Your task to perform on an android device: uninstall "Pluto TV - Live TV and Movies" Image 0: 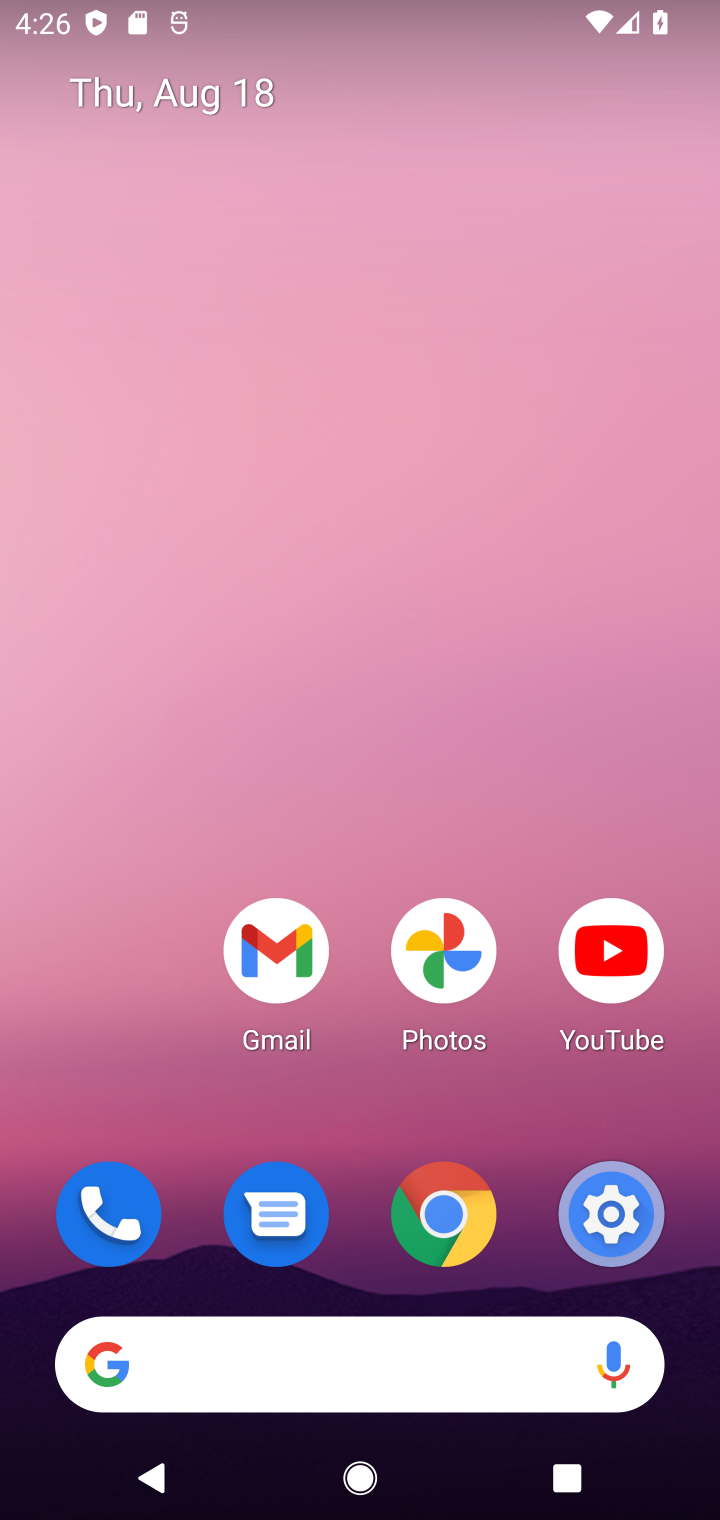
Step 0: drag from (232, 726) to (245, 396)
Your task to perform on an android device: uninstall "Pluto TV - Live TV and Movies" Image 1: 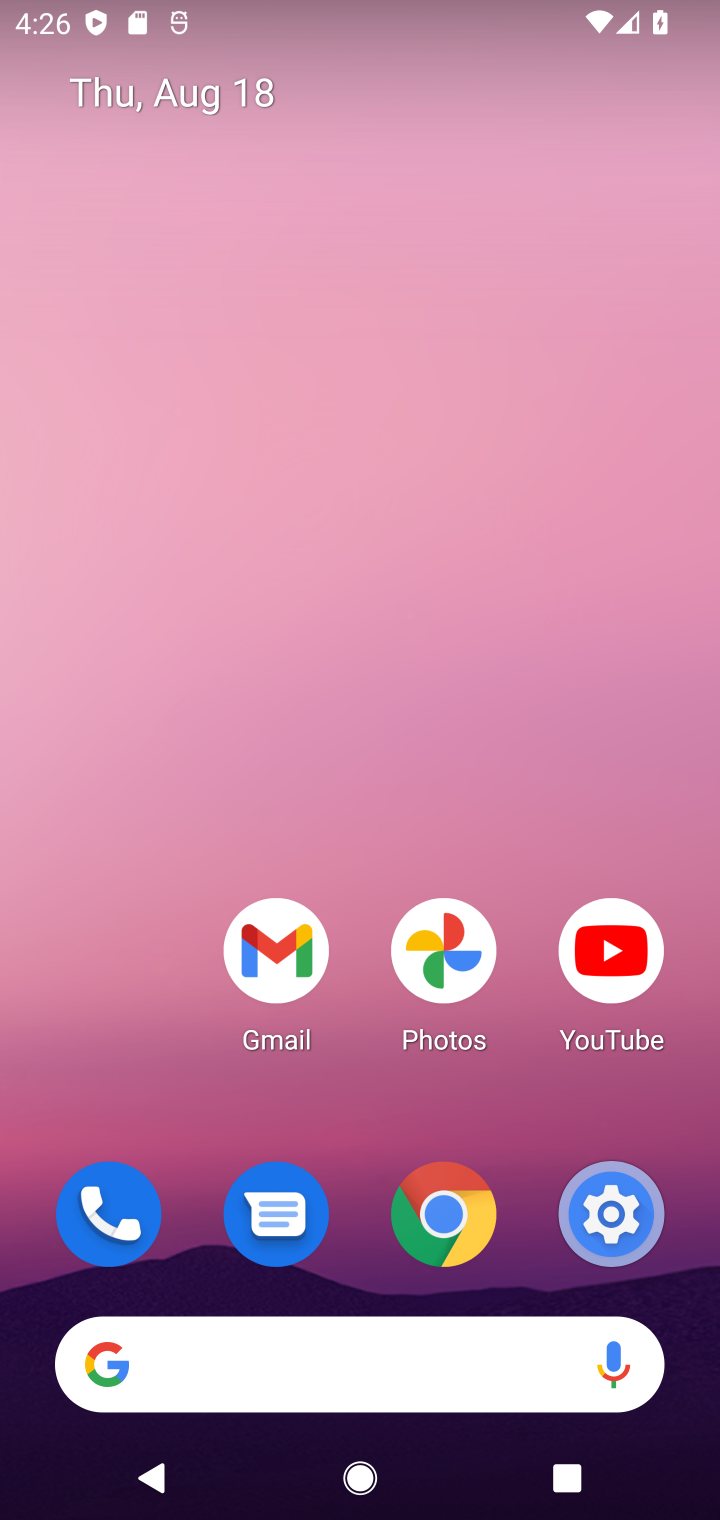
Step 1: drag from (319, 1178) to (374, 148)
Your task to perform on an android device: uninstall "Pluto TV - Live TV and Movies" Image 2: 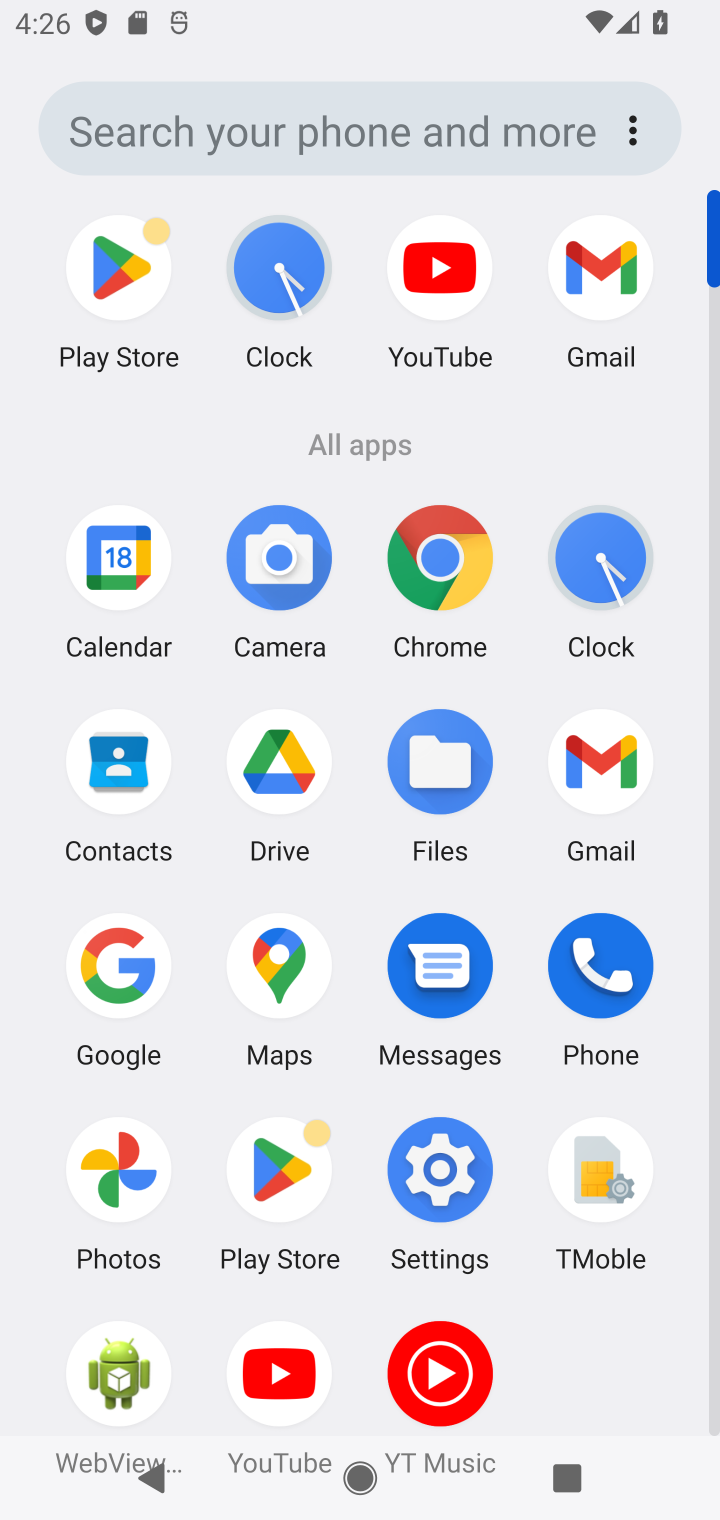
Step 2: click (292, 1185)
Your task to perform on an android device: uninstall "Pluto TV - Live TV and Movies" Image 3: 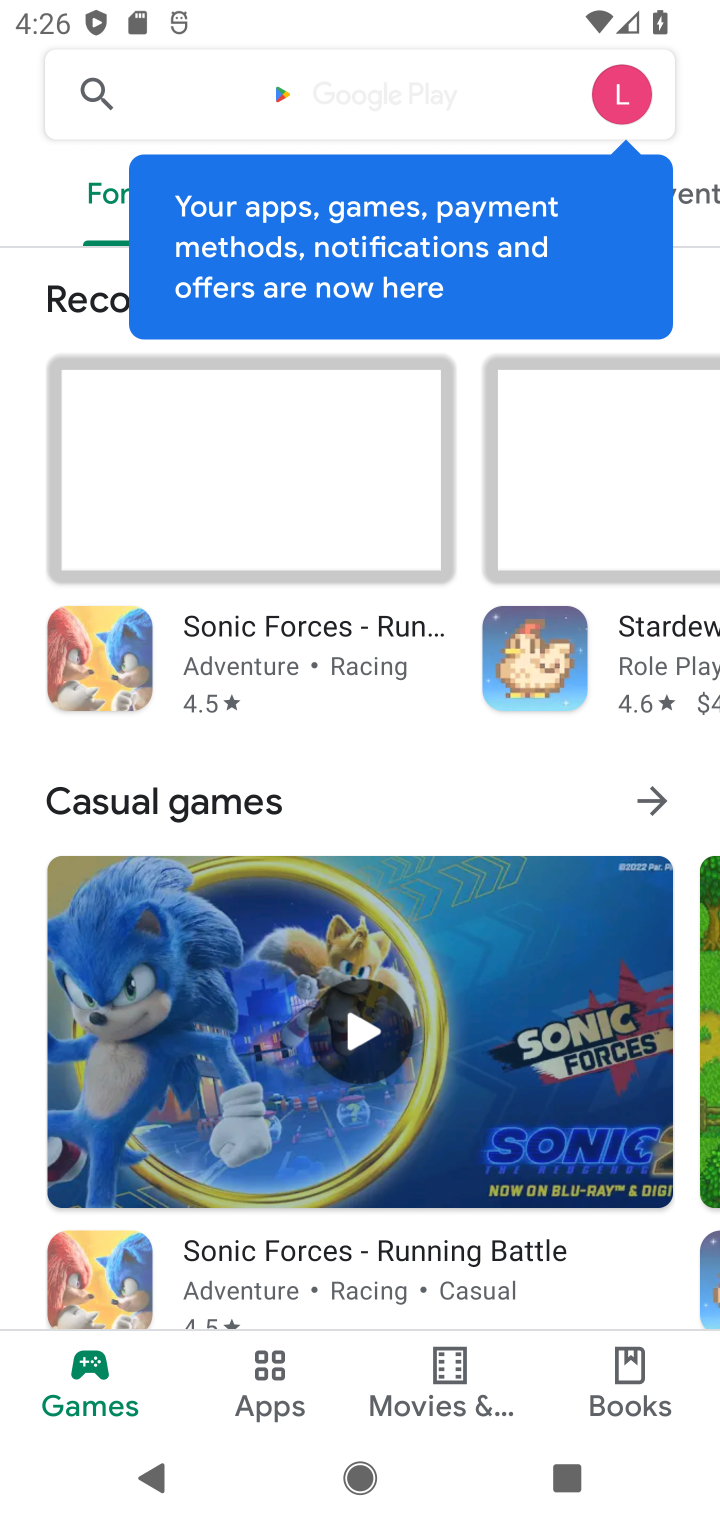
Step 3: click (325, 101)
Your task to perform on an android device: uninstall "Pluto TV - Live TV and Movies" Image 4: 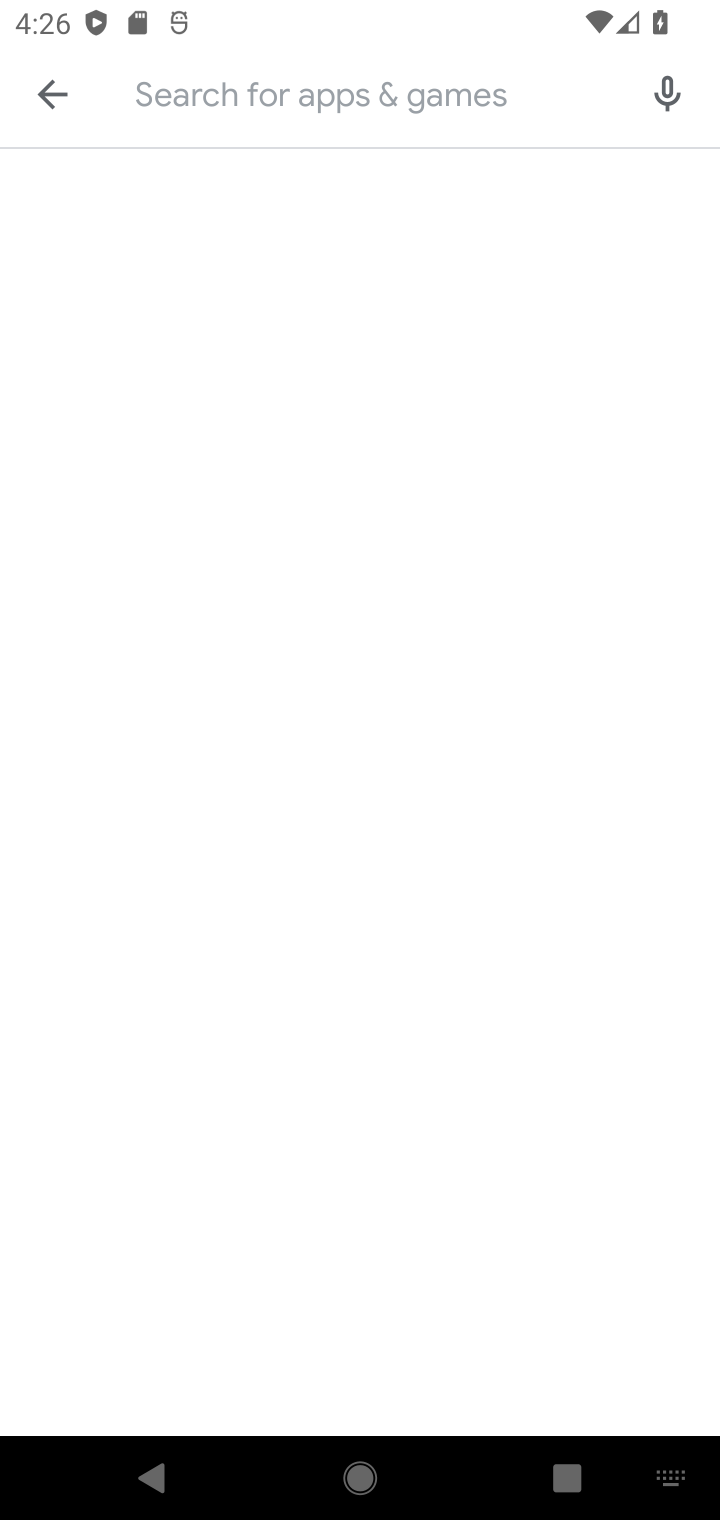
Step 4: type "pluto tv"
Your task to perform on an android device: uninstall "Pluto TV - Live TV and Movies" Image 5: 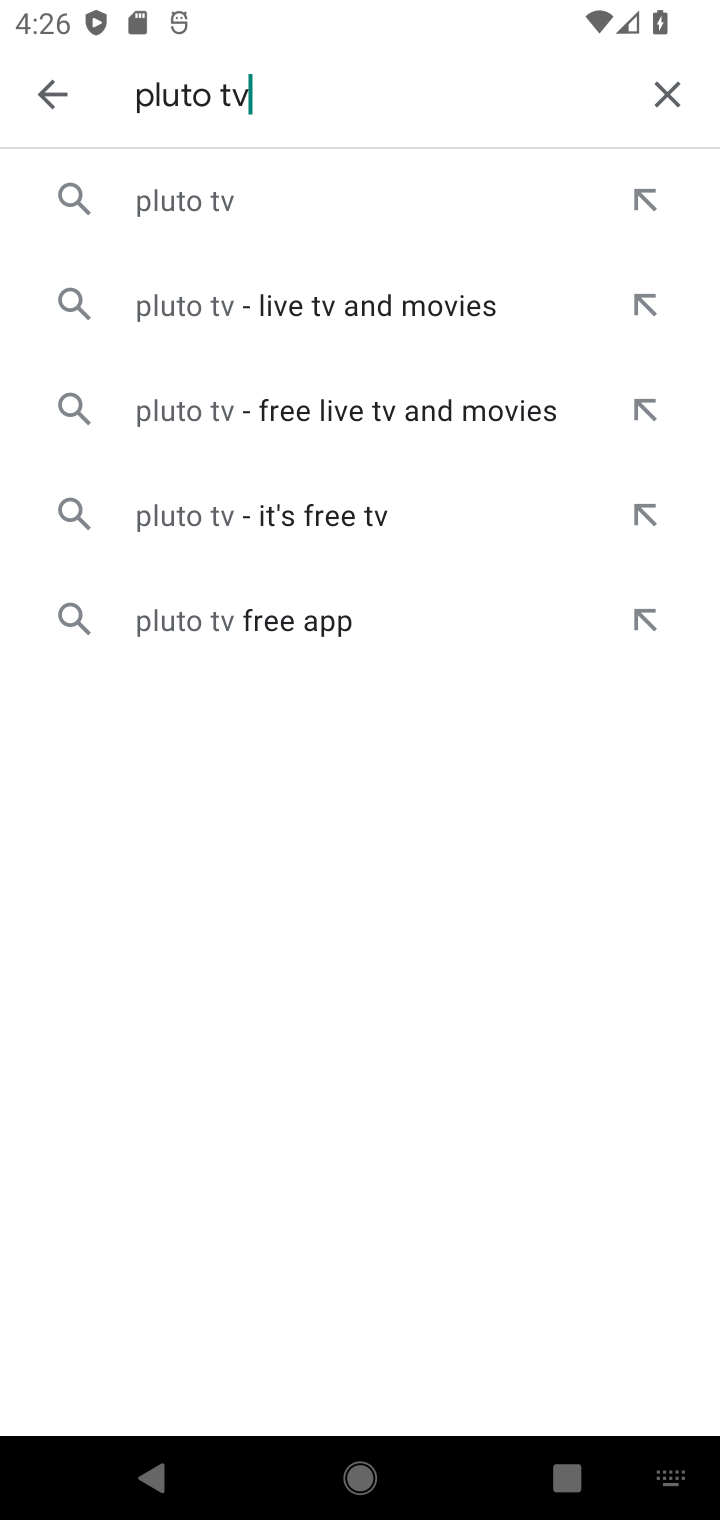
Step 5: click (187, 229)
Your task to perform on an android device: uninstall "Pluto TV - Live TV and Movies" Image 6: 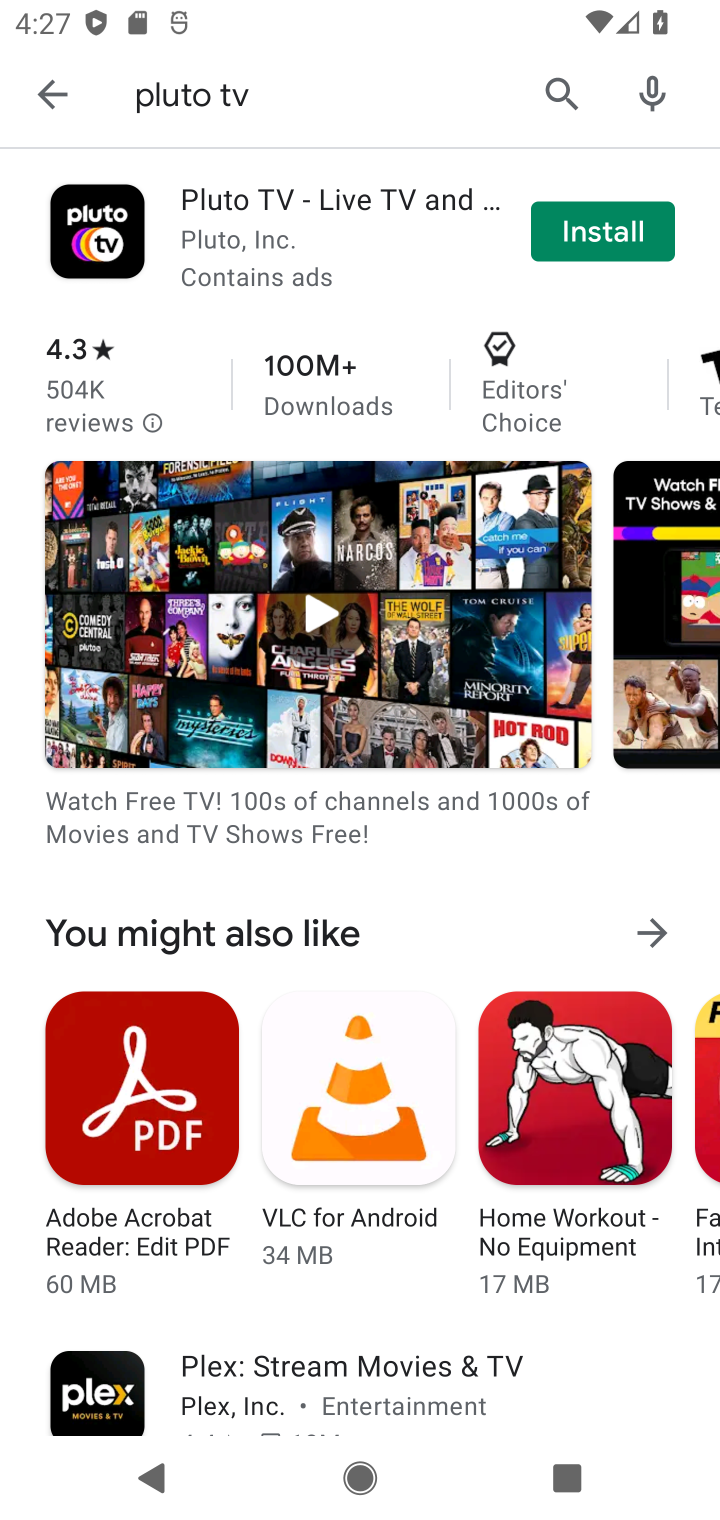
Step 6: task complete